Your task to perform on an android device: See recent photos Image 0: 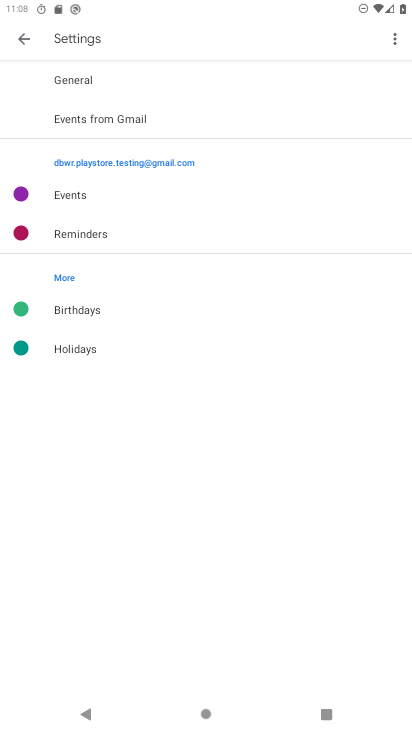
Step 0: press home button
Your task to perform on an android device: See recent photos Image 1: 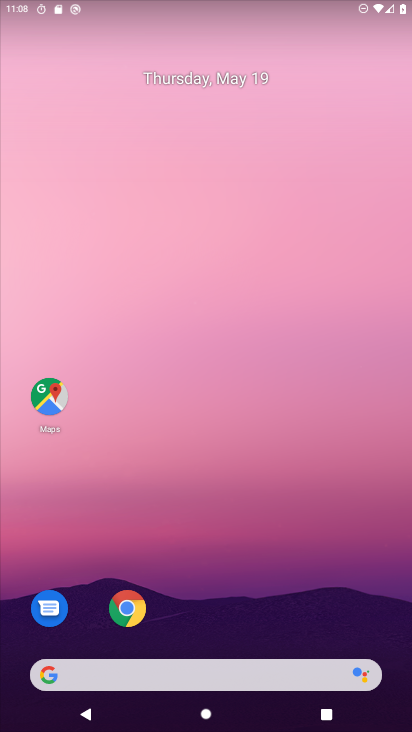
Step 1: drag from (402, 639) to (355, 289)
Your task to perform on an android device: See recent photos Image 2: 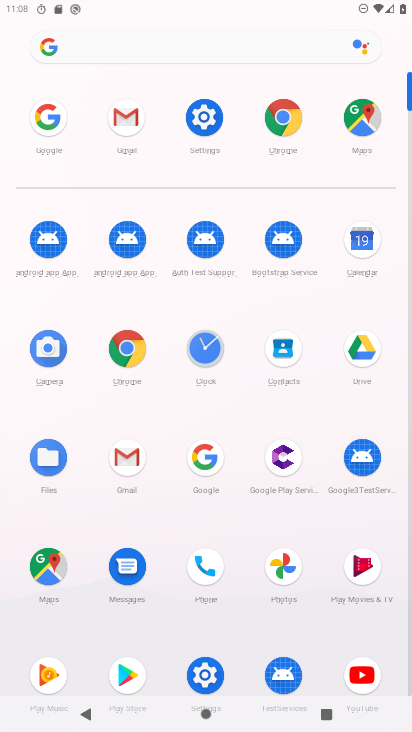
Step 2: click (287, 570)
Your task to perform on an android device: See recent photos Image 3: 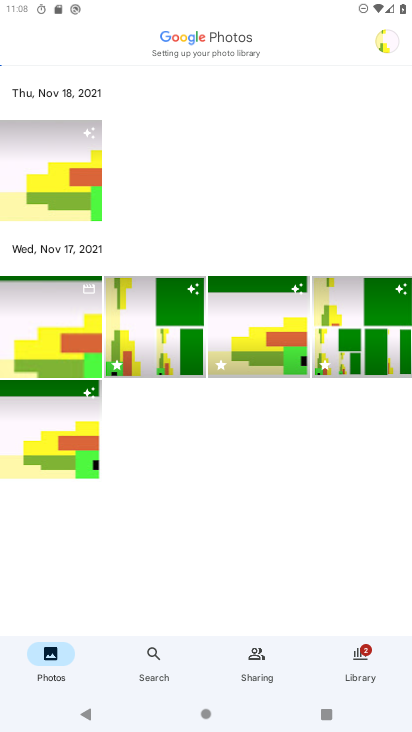
Step 3: click (82, 173)
Your task to perform on an android device: See recent photos Image 4: 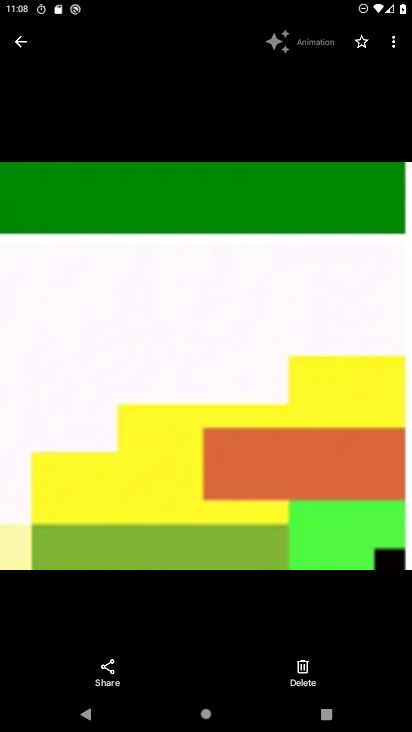
Step 4: task complete